Your task to perform on an android device: find photos in the google photos app Image 0: 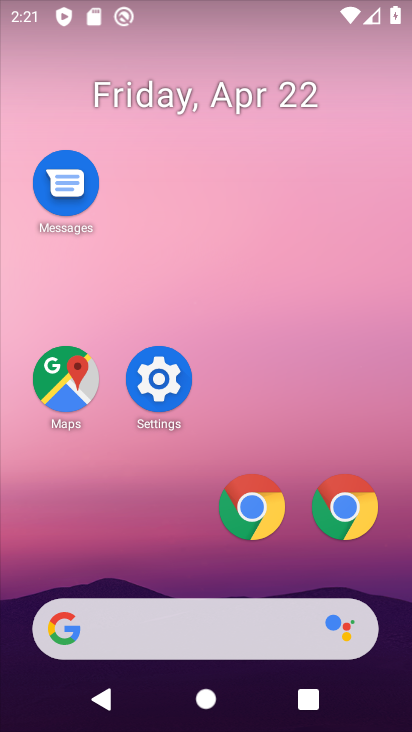
Step 0: drag from (199, 366) to (162, 302)
Your task to perform on an android device: find photos in the google photos app Image 1: 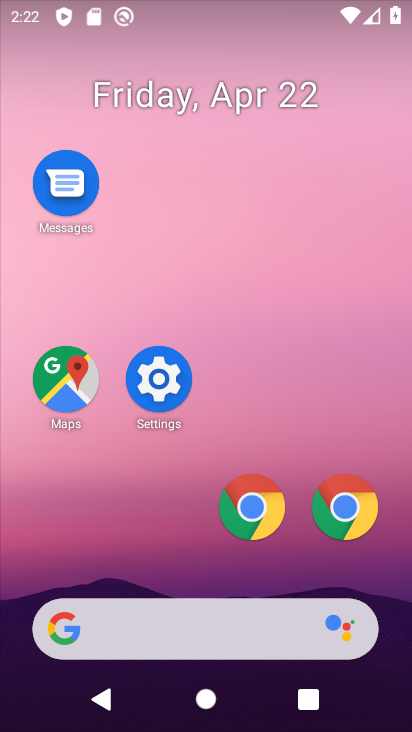
Step 1: drag from (190, 560) to (120, 266)
Your task to perform on an android device: find photos in the google photos app Image 2: 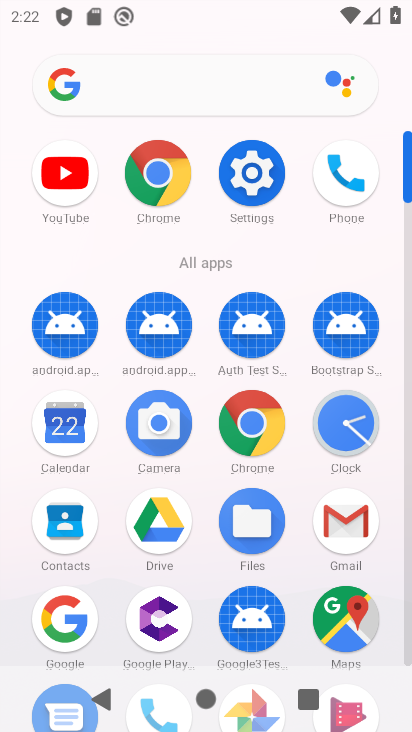
Step 2: drag from (144, 339) to (102, 39)
Your task to perform on an android device: find photos in the google photos app Image 3: 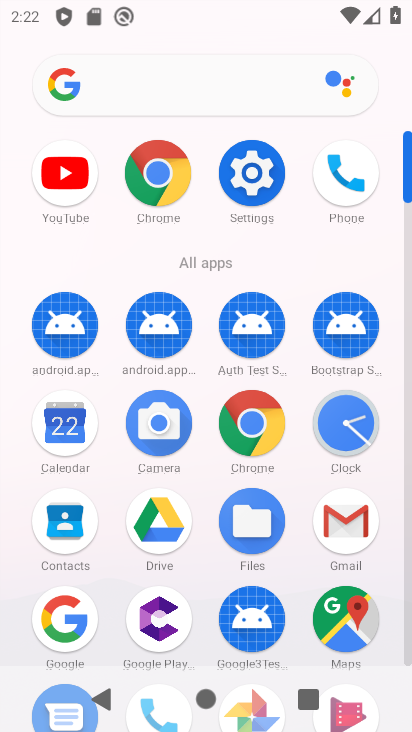
Step 3: drag from (288, 599) to (251, 188)
Your task to perform on an android device: find photos in the google photos app Image 4: 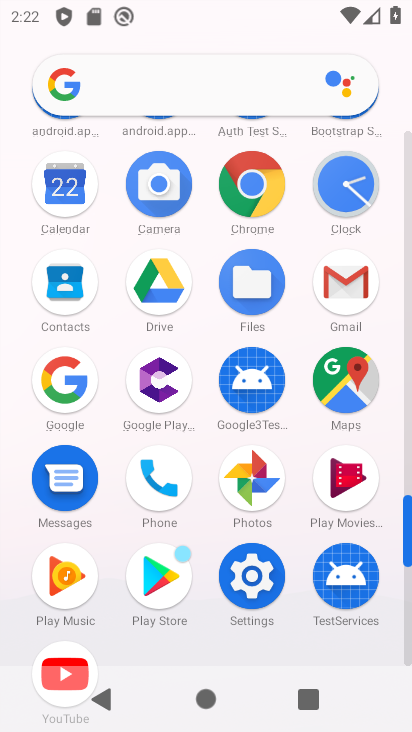
Step 4: drag from (284, 437) to (260, 241)
Your task to perform on an android device: find photos in the google photos app Image 5: 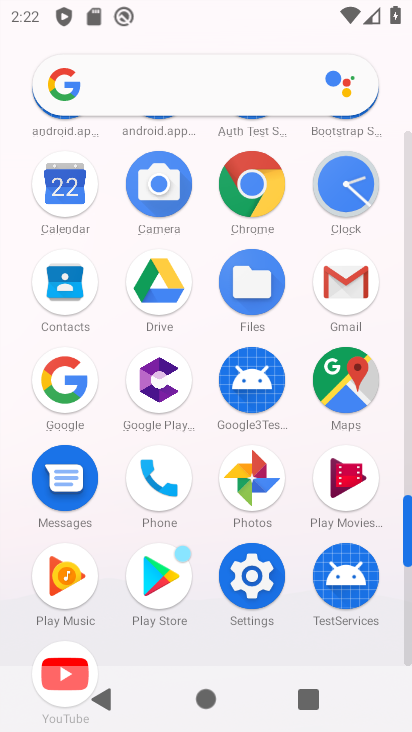
Step 5: click (249, 478)
Your task to perform on an android device: find photos in the google photos app Image 6: 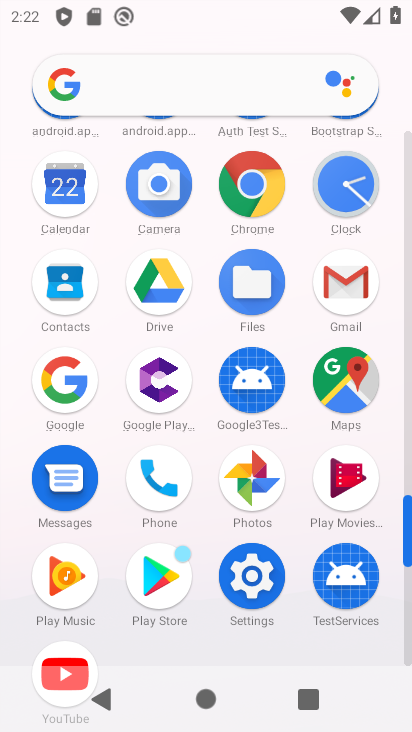
Step 6: click (249, 478)
Your task to perform on an android device: find photos in the google photos app Image 7: 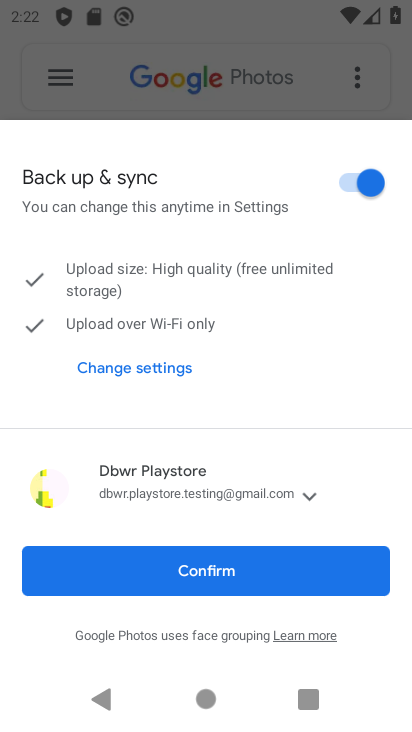
Step 7: press home button
Your task to perform on an android device: find photos in the google photos app Image 8: 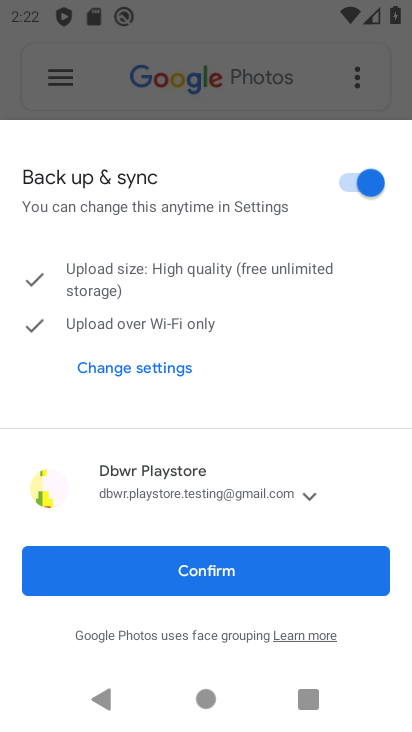
Step 8: click (216, 576)
Your task to perform on an android device: find photos in the google photos app Image 9: 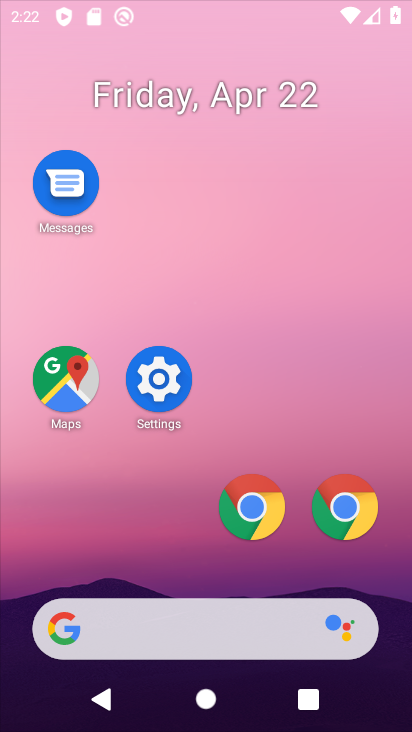
Step 9: click (215, 575)
Your task to perform on an android device: find photos in the google photos app Image 10: 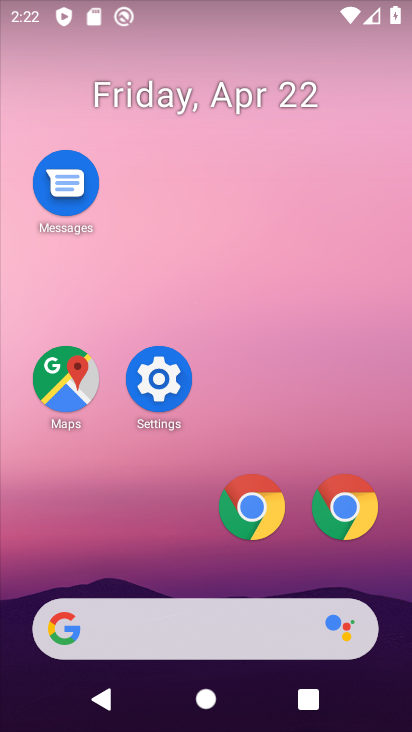
Step 10: drag from (260, 680) to (210, 356)
Your task to perform on an android device: find photos in the google photos app Image 11: 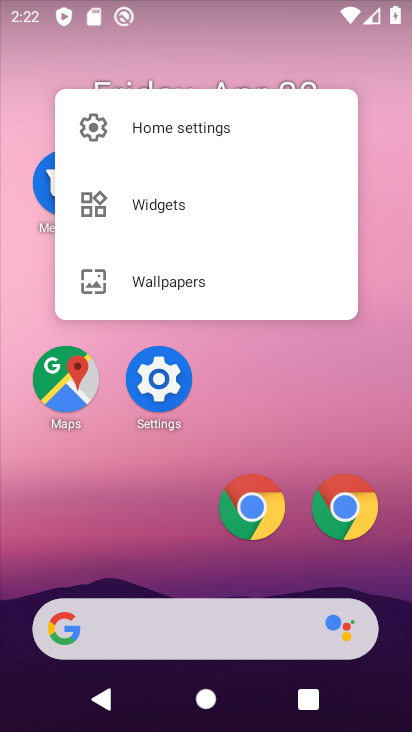
Step 11: drag from (223, 596) to (27, 144)
Your task to perform on an android device: find photos in the google photos app Image 12: 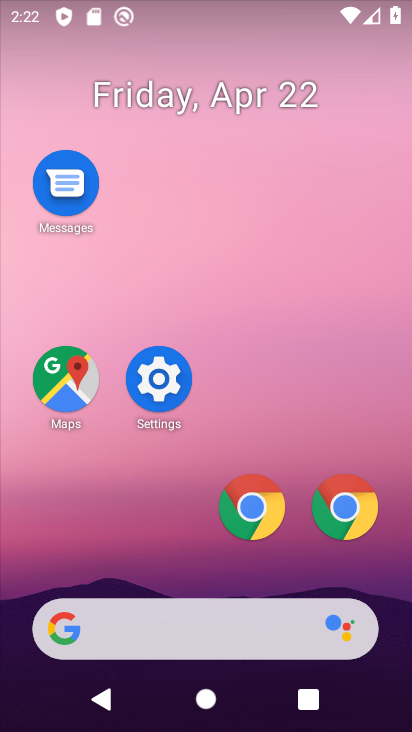
Step 12: drag from (96, 386) to (11, 77)
Your task to perform on an android device: find photos in the google photos app Image 13: 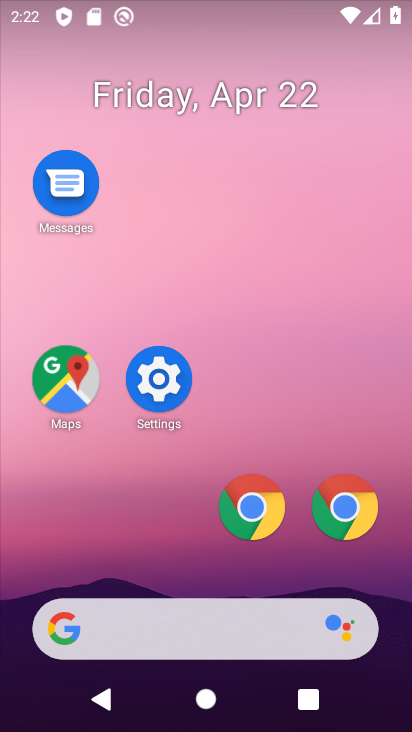
Step 13: drag from (228, 496) to (119, 42)
Your task to perform on an android device: find photos in the google photos app Image 14: 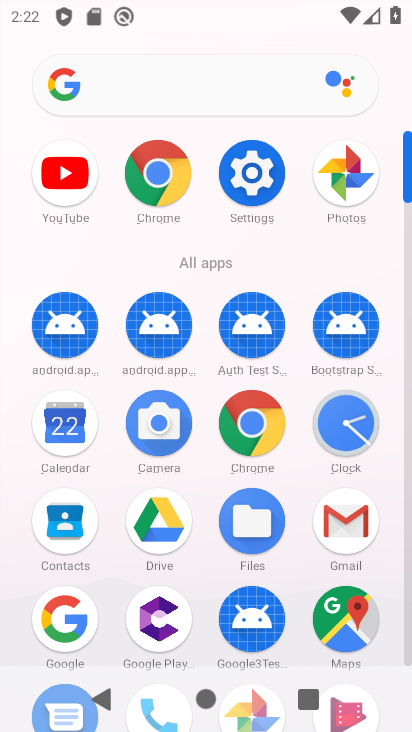
Step 14: drag from (294, 614) to (262, 100)
Your task to perform on an android device: find photos in the google photos app Image 15: 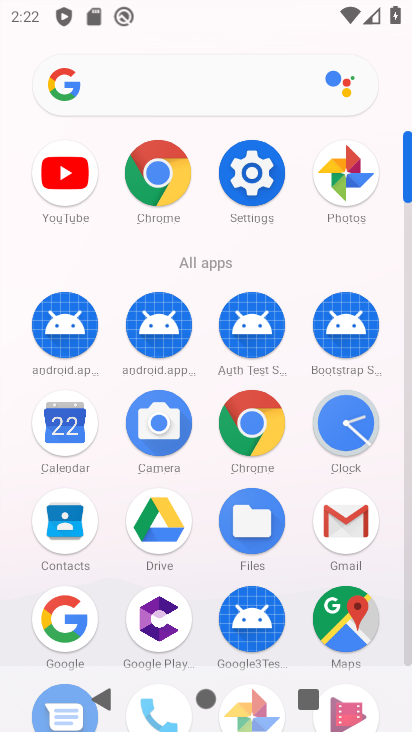
Step 15: click (344, 169)
Your task to perform on an android device: find photos in the google photos app Image 16: 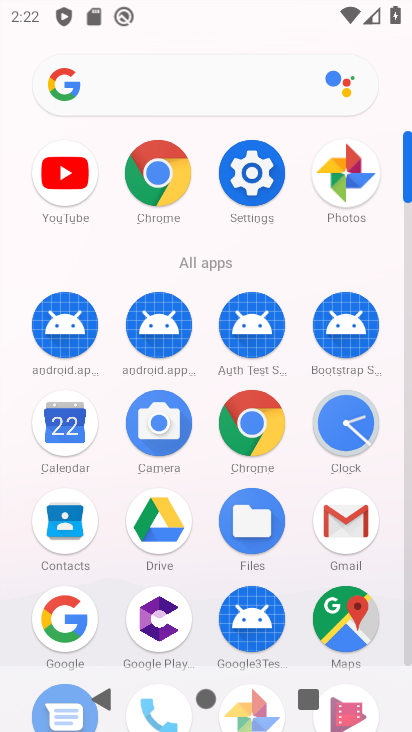
Step 16: click (344, 169)
Your task to perform on an android device: find photos in the google photos app Image 17: 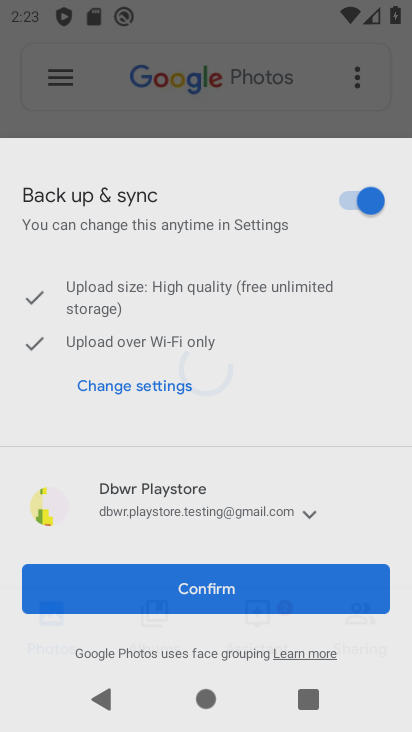
Step 17: click (344, 169)
Your task to perform on an android device: find photos in the google photos app Image 18: 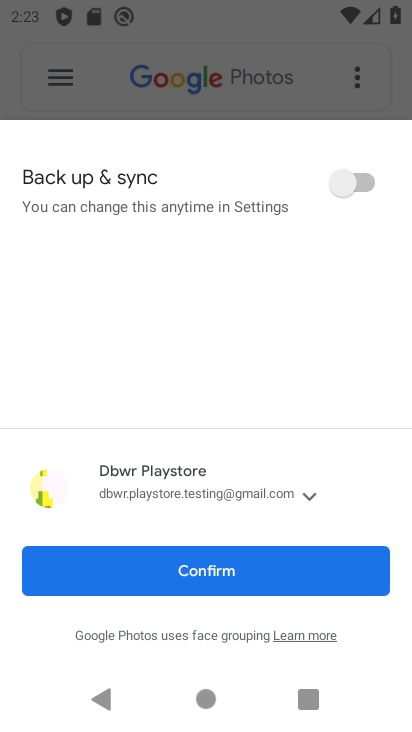
Step 18: click (197, 585)
Your task to perform on an android device: find photos in the google photos app Image 19: 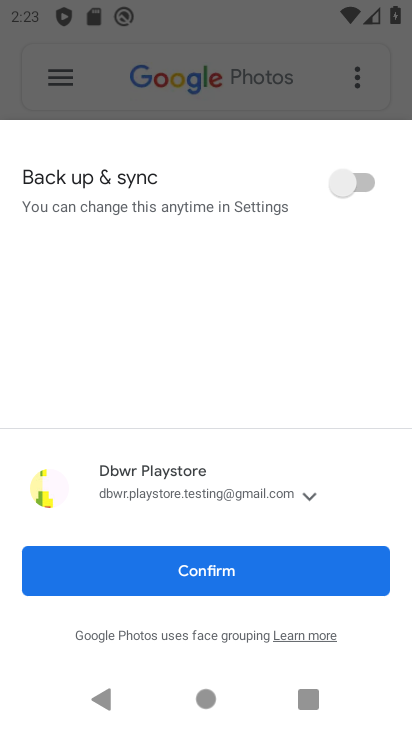
Step 19: click (198, 583)
Your task to perform on an android device: find photos in the google photos app Image 20: 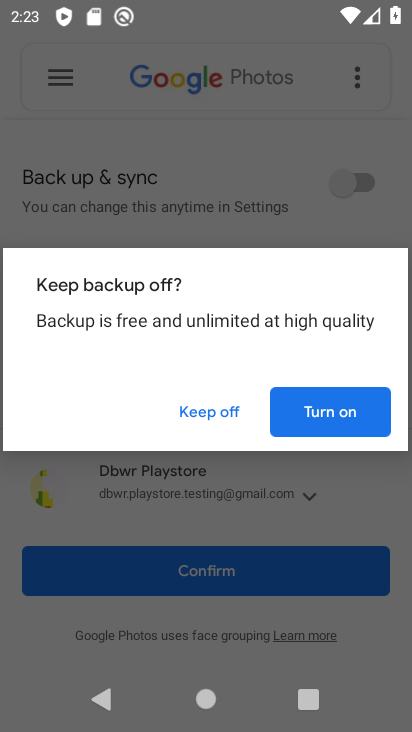
Step 20: click (332, 406)
Your task to perform on an android device: find photos in the google photos app Image 21: 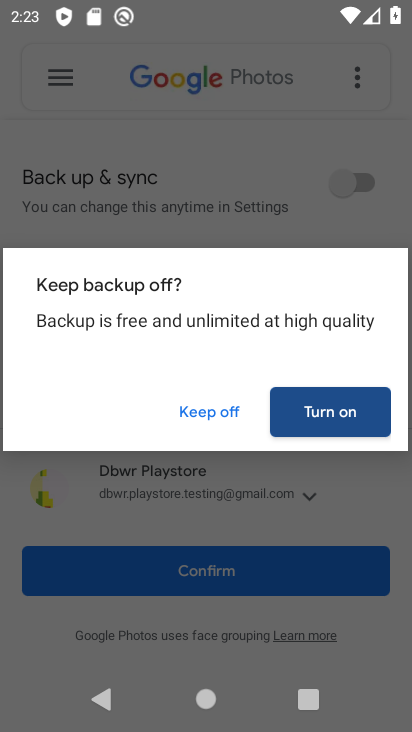
Step 21: click (332, 406)
Your task to perform on an android device: find photos in the google photos app Image 22: 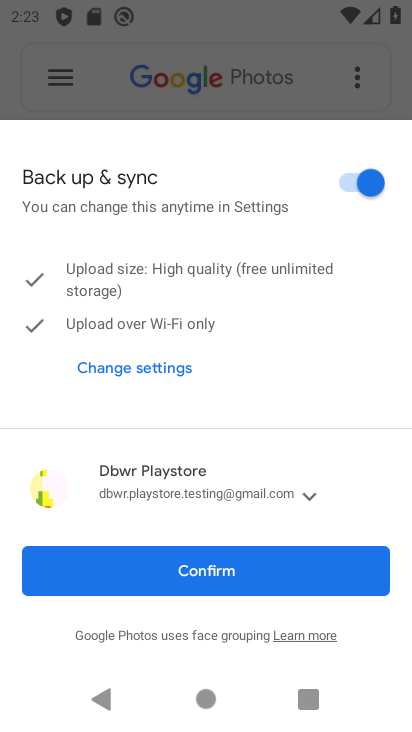
Step 22: click (210, 578)
Your task to perform on an android device: find photos in the google photos app Image 23: 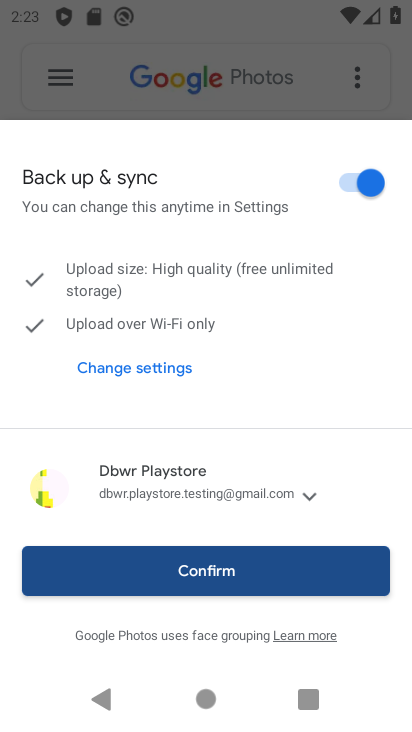
Step 23: click (211, 568)
Your task to perform on an android device: find photos in the google photos app Image 24: 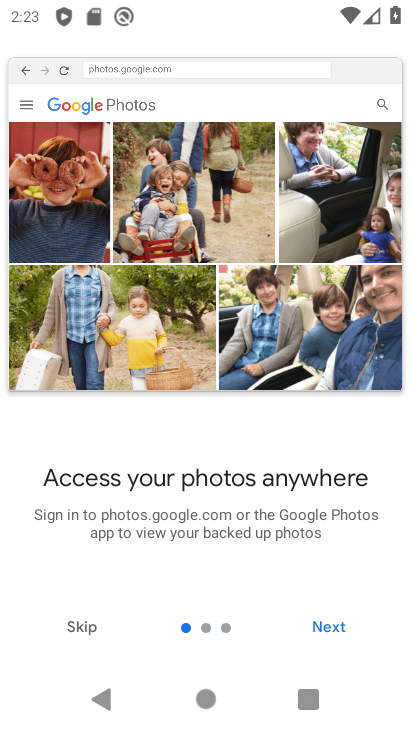
Step 24: click (328, 620)
Your task to perform on an android device: find photos in the google photos app Image 25: 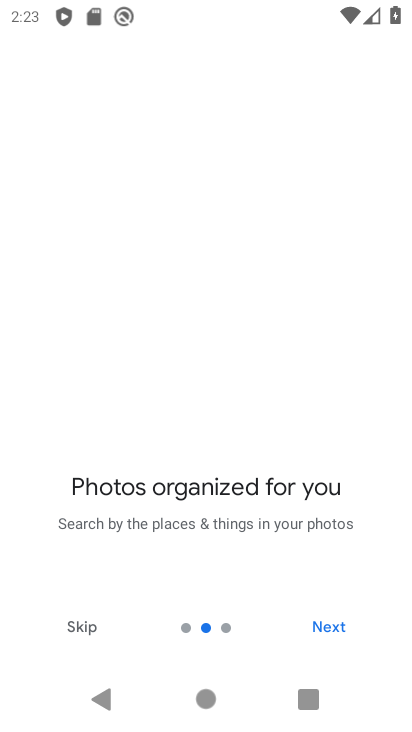
Step 25: click (327, 622)
Your task to perform on an android device: find photos in the google photos app Image 26: 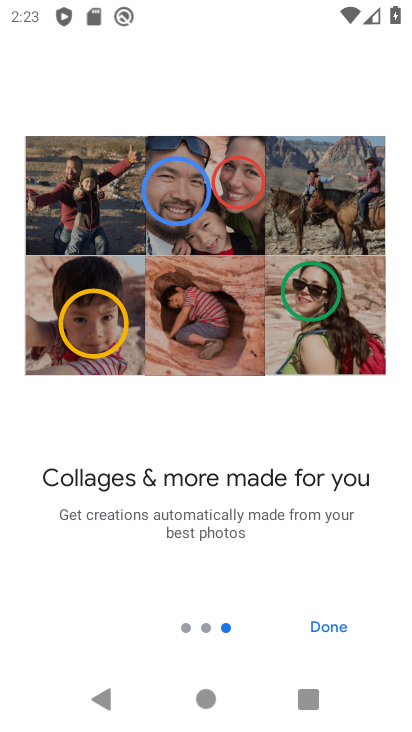
Step 26: click (327, 622)
Your task to perform on an android device: find photos in the google photos app Image 27: 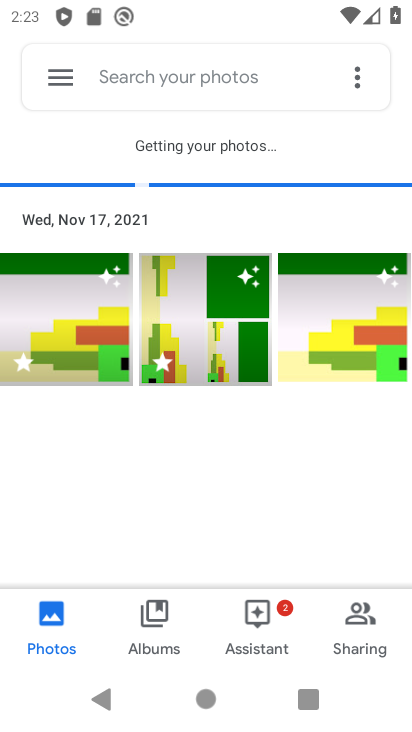
Step 27: task complete